Your task to perform on an android device: Open the Play Movies app and select the watchlist tab. Image 0: 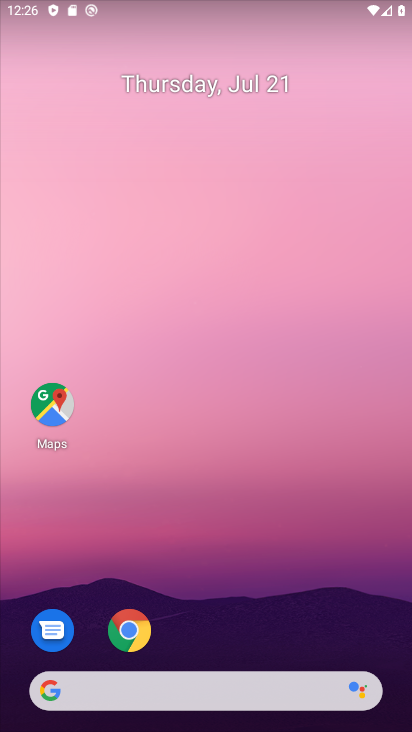
Step 0: press home button
Your task to perform on an android device: Open the Play Movies app and select the watchlist tab. Image 1: 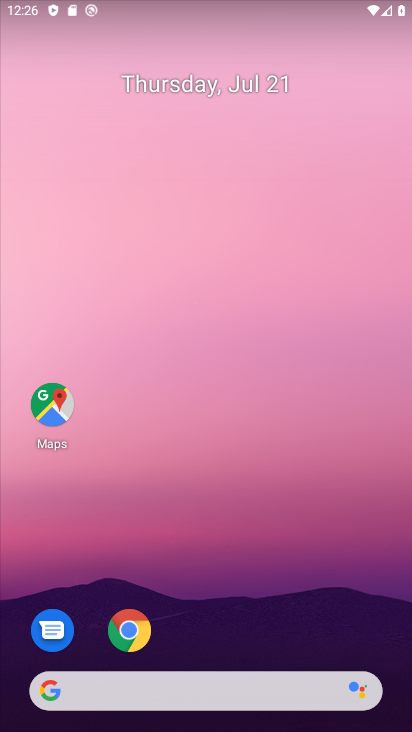
Step 1: drag from (357, 635) to (259, 209)
Your task to perform on an android device: Open the Play Movies app and select the watchlist tab. Image 2: 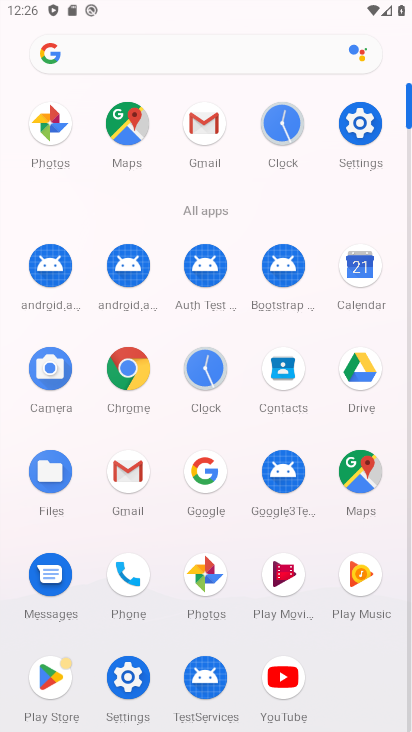
Step 2: click (282, 561)
Your task to perform on an android device: Open the Play Movies app and select the watchlist tab. Image 3: 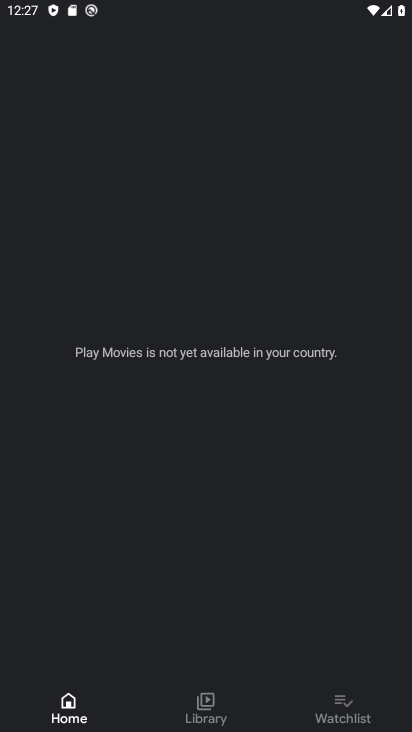
Step 3: click (320, 708)
Your task to perform on an android device: Open the Play Movies app and select the watchlist tab. Image 4: 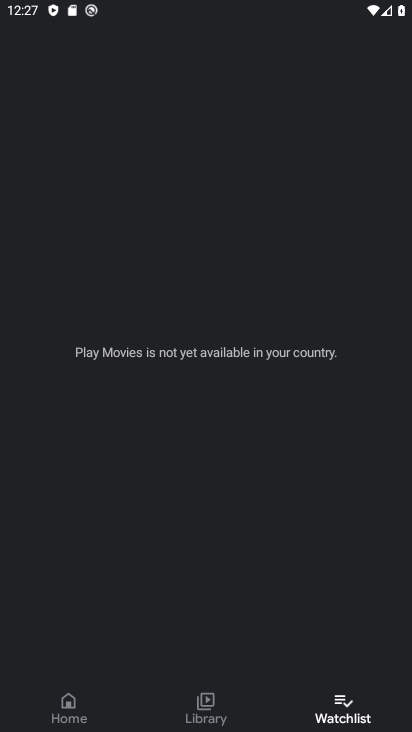
Step 4: task complete